Your task to perform on an android device: empty trash in the gmail app Image 0: 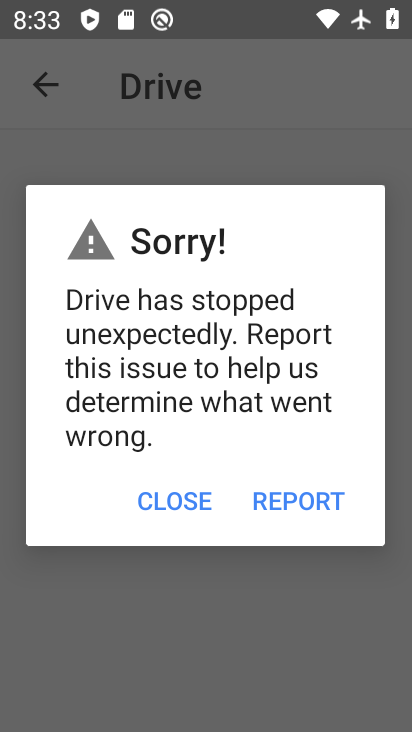
Step 0: press back button
Your task to perform on an android device: empty trash in the gmail app Image 1: 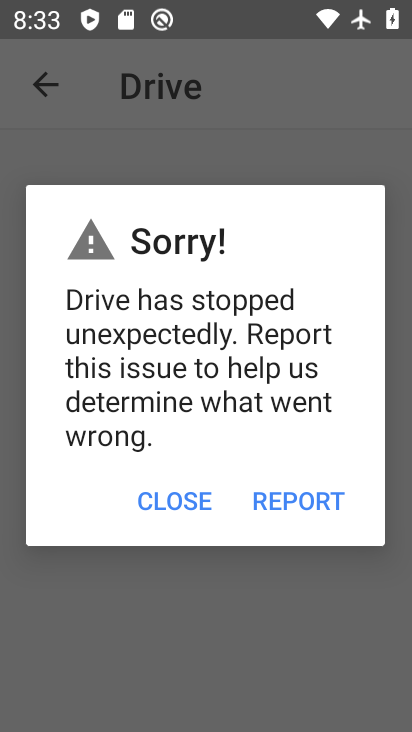
Step 1: press back button
Your task to perform on an android device: empty trash in the gmail app Image 2: 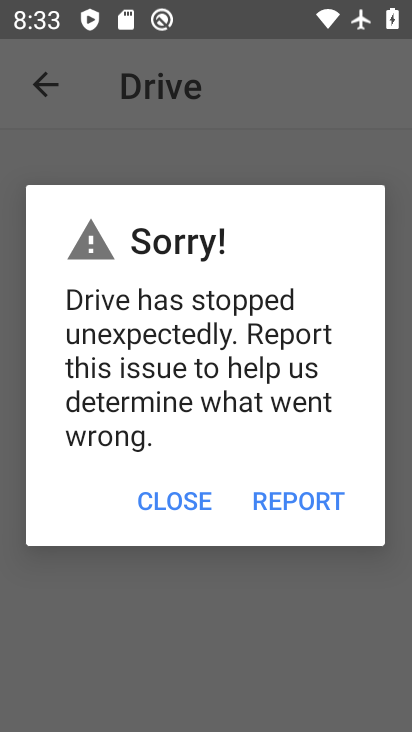
Step 2: press home button
Your task to perform on an android device: empty trash in the gmail app Image 3: 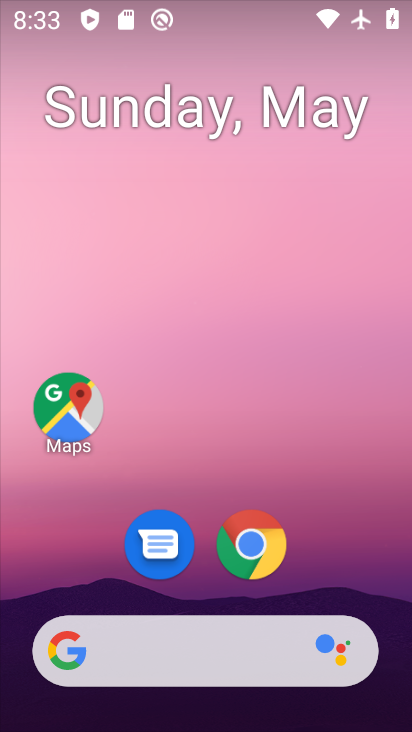
Step 3: drag from (320, 560) to (254, 3)
Your task to perform on an android device: empty trash in the gmail app Image 4: 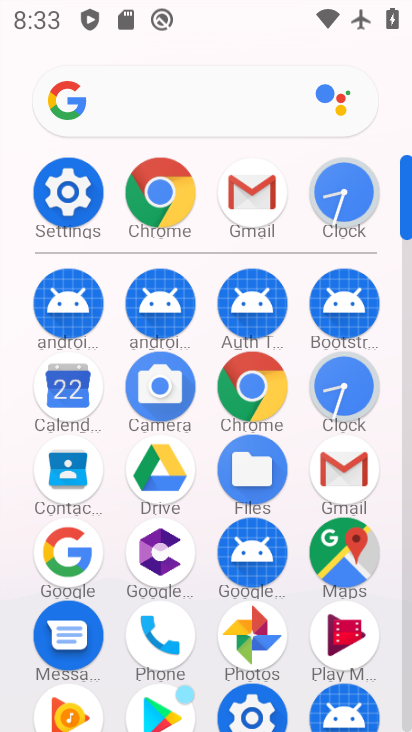
Step 4: click (344, 466)
Your task to perform on an android device: empty trash in the gmail app Image 5: 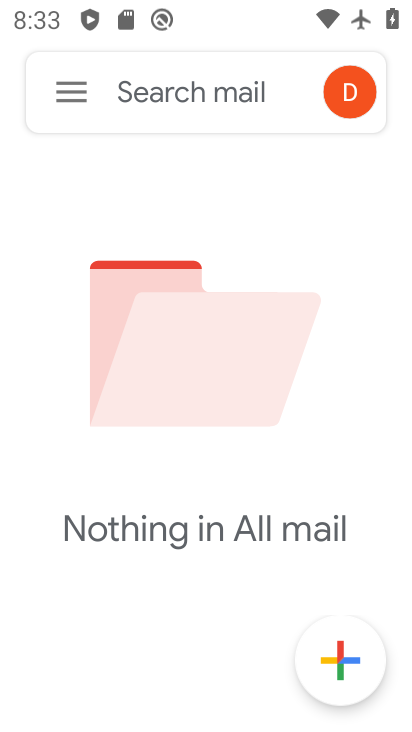
Step 5: click (57, 84)
Your task to perform on an android device: empty trash in the gmail app Image 6: 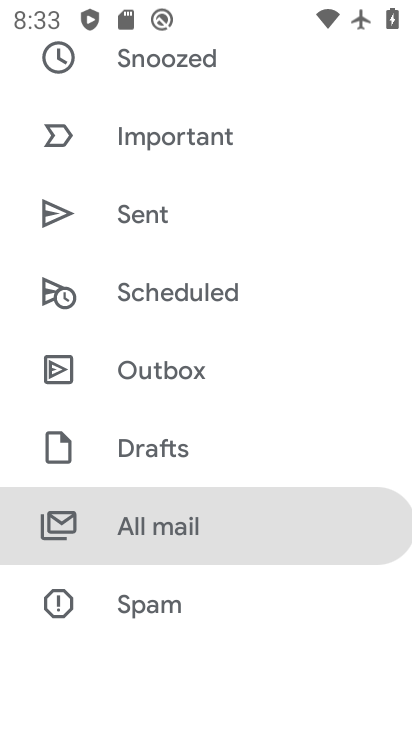
Step 6: drag from (269, 180) to (271, 630)
Your task to perform on an android device: empty trash in the gmail app Image 7: 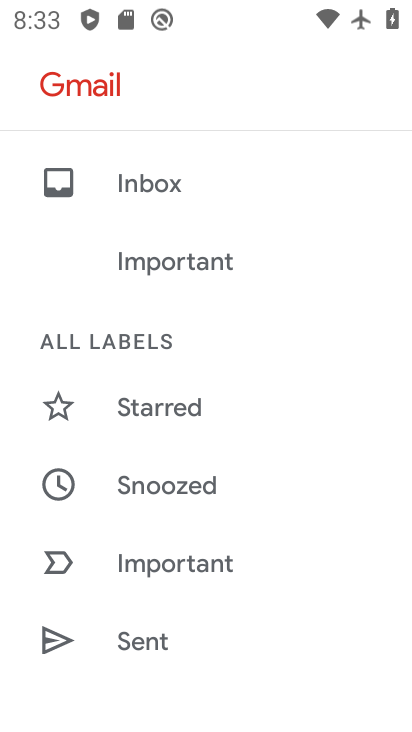
Step 7: drag from (264, 592) to (264, 136)
Your task to perform on an android device: empty trash in the gmail app Image 8: 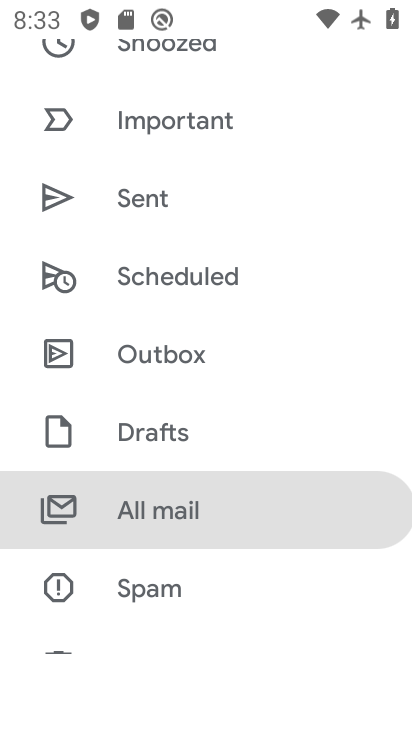
Step 8: drag from (211, 607) to (263, 195)
Your task to perform on an android device: empty trash in the gmail app Image 9: 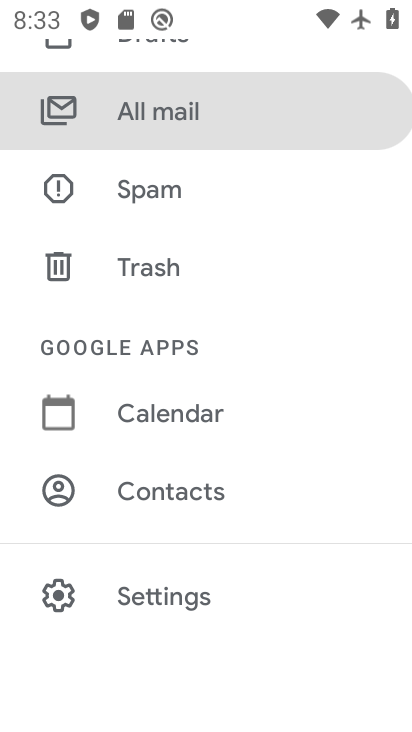
Step 9: click (178, 271)
Your task to perform on an android device: empty trash in the gmail app Image 10: 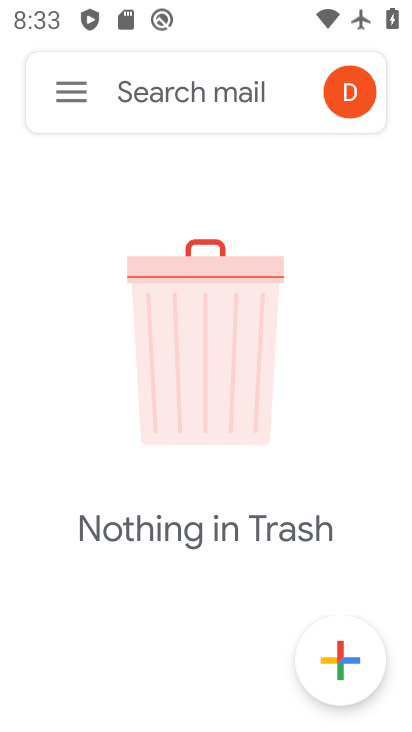
Step 10: task complete